Your task to perform on an android device: Go to location settings Image 0: 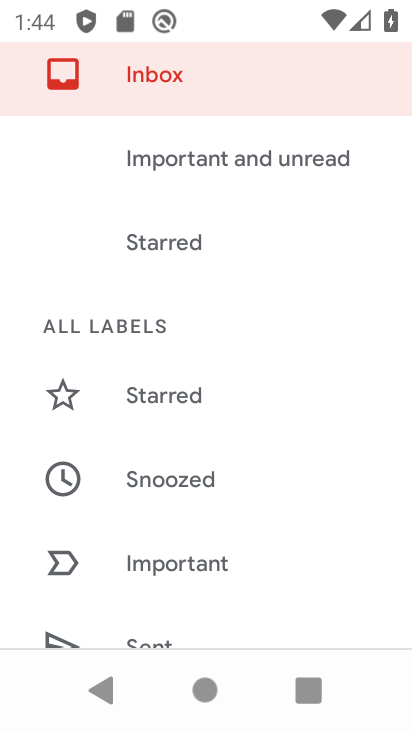
Step 0: press home button
Your task to perform on an android device: Go to location settings Image 1: 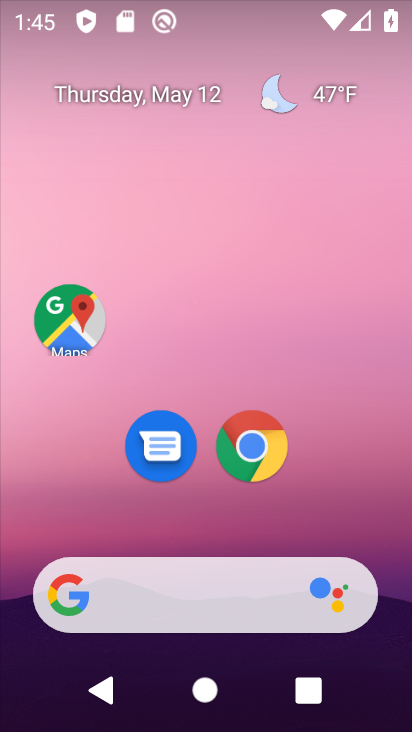
Step 1: drag from (218, 526) to (177, 6)
Your task to perform on an android device: Go to location settings Image 2: 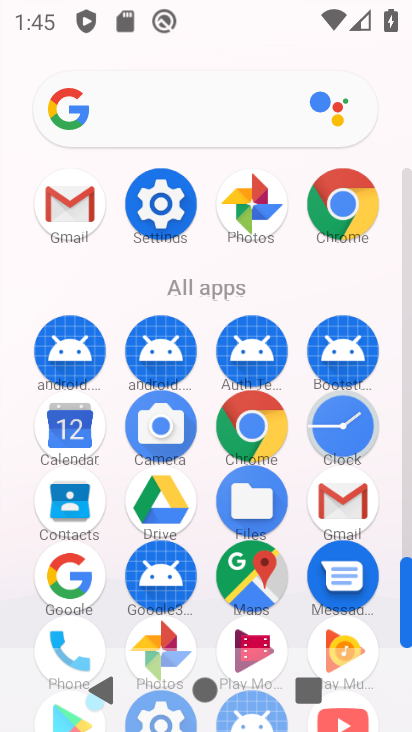
Step 2: click (165, 180)
Your task to perform on an android device: Go to location settings Image 3: 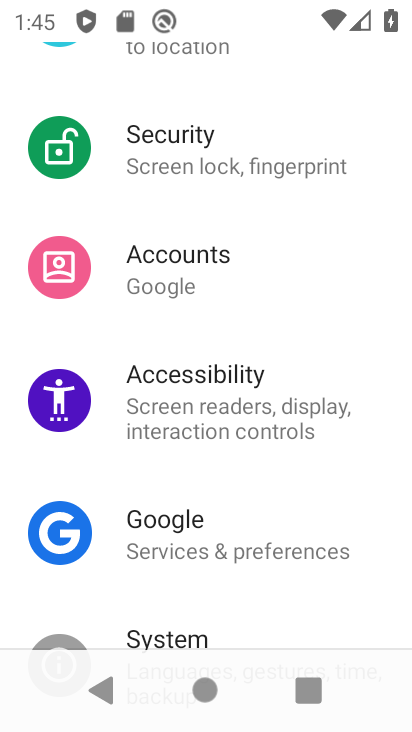
Step 3: drag from (199, 179) to (198, 378)
Your task to perform on an android device: Go to location settings Image 4: 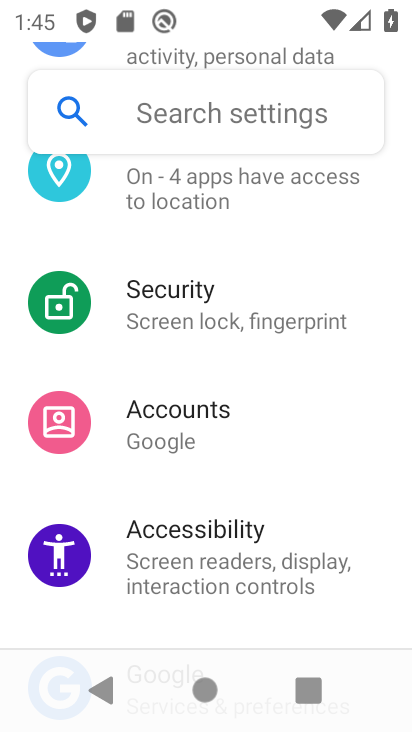
Step 4: drag from (199, 250) to (199, 596)
Your task to perform on an android device: Go to location settings Image 5: 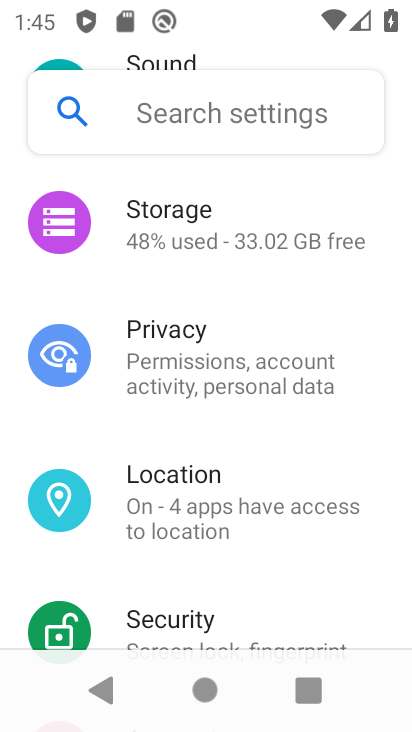
Step 5: click (200, 494)
Your task to perform on an android device: Go to location settings Image 6: 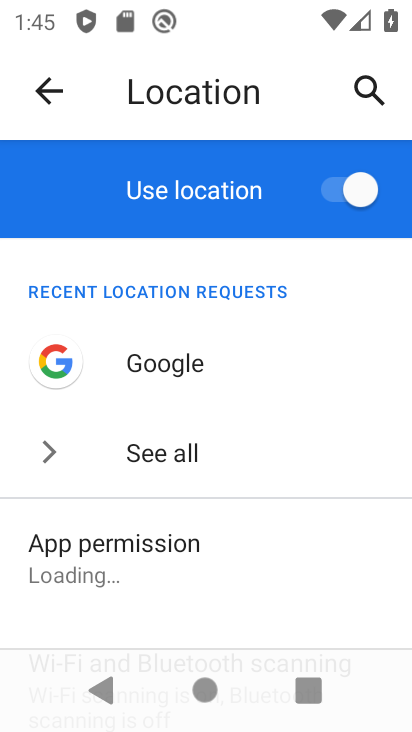
Step 6: task complete